Your task to perform on an android device: toggle show notifications on the lock screen Image 0: 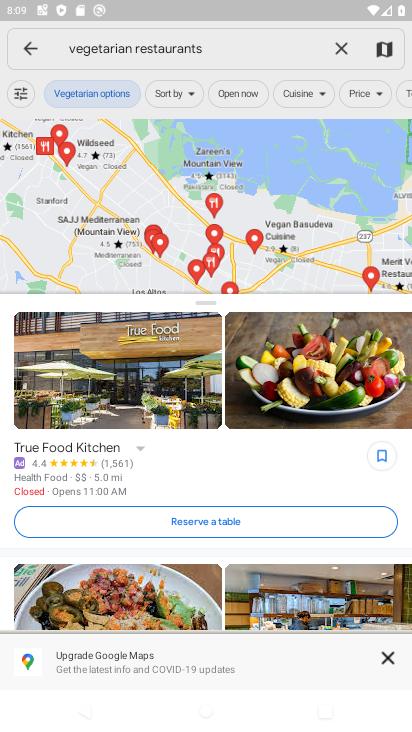
Step 0: press home button
Your task to perform on an android device: toggle show notifications on the lock screen Image 1: 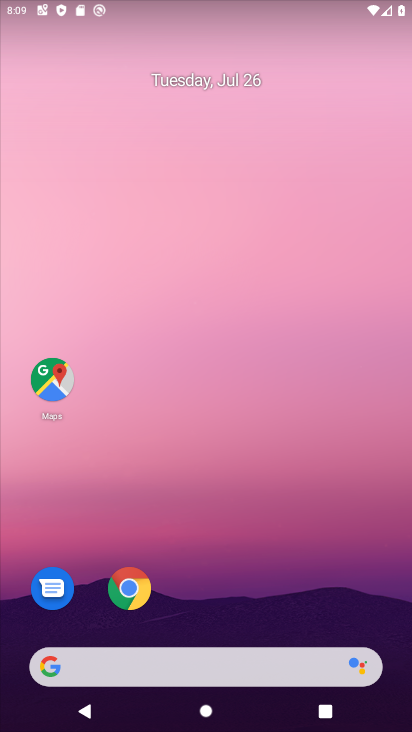
Step 1: drag from (254, 577) to (252, 361)
Your task to perform on an android device: toggle show notifications on the lock screen Image 2: 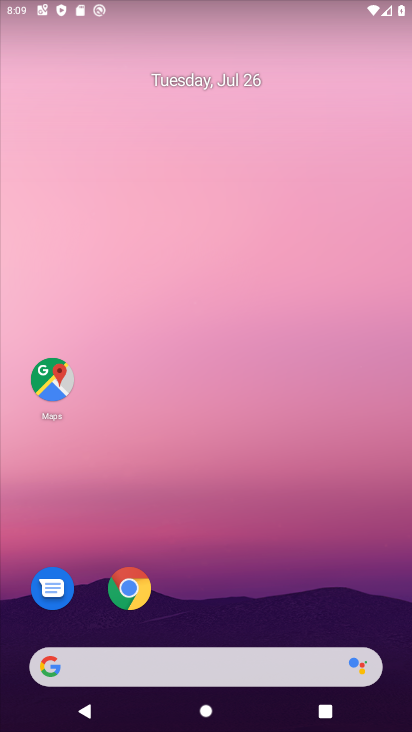
Step 2: drag from (253, 518) to (247, 163)
Your task to perform on an android device: toggle show notifications on the lock screen Image 3: 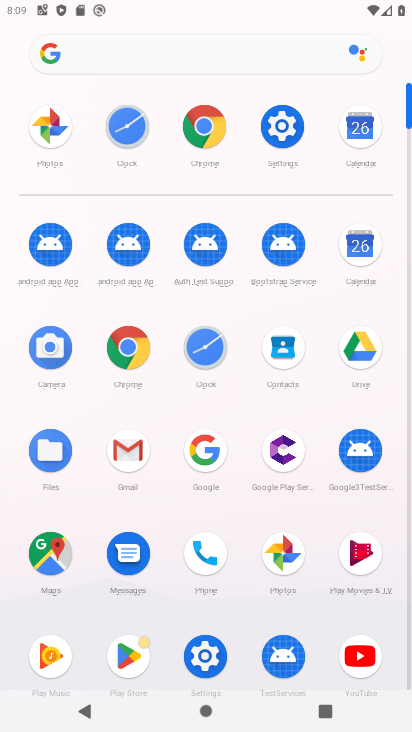
Step 3: click (205, 666)
Your task to perform on an android device: toggle show notifications on the lock screen Image 4: 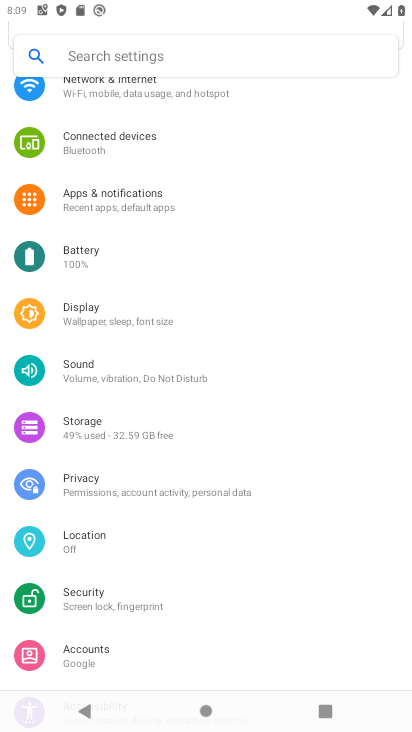
Step 4: task complete